Your task to perform on an android device: turn off improve location accuracy Image 0: 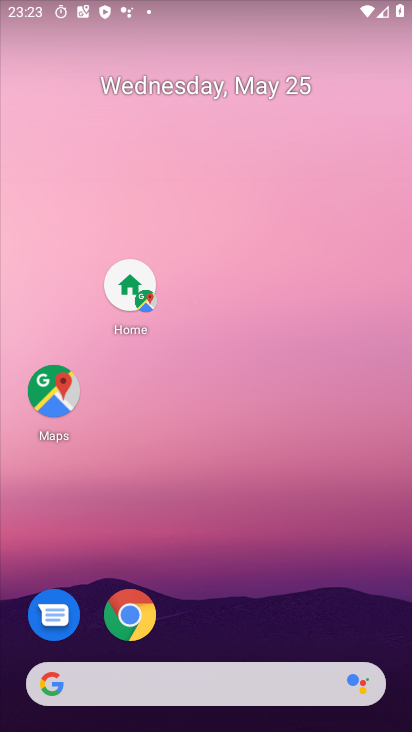
Step 0: press home button
Your task to perform on an android device: turn off improve location accuracy Image 1: 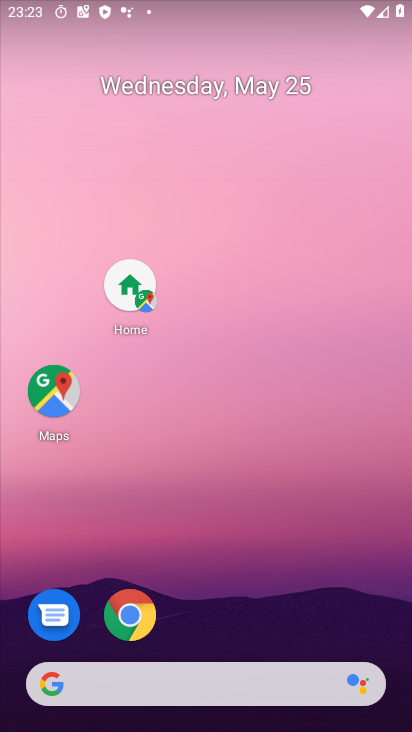
Step 1: drag from (281, 632) to (242, 22)
Your task to perform on an android device: turn off improve location accuracy Image 2: 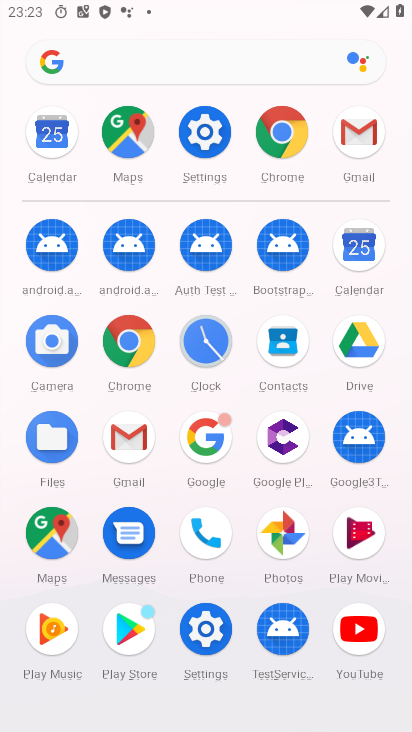
Step 2: click (213, 132)
Your task to perform on an android device: turn off improve location accuracy Image 3: 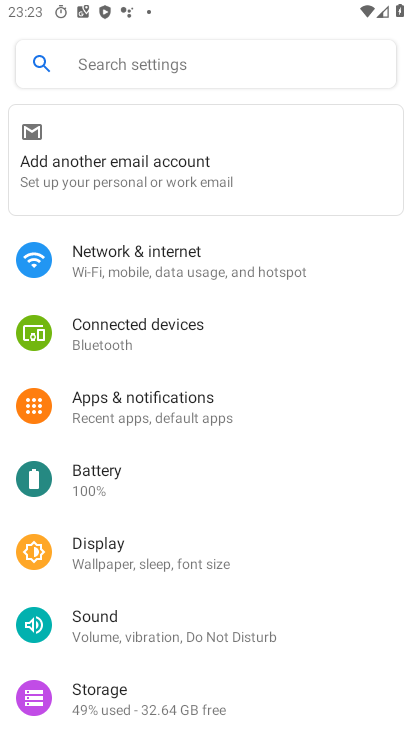
Step 3: drag from (345, 676) to (352, 147)
Your task to perform on an android device: turn off improve location accuracy Image 4: 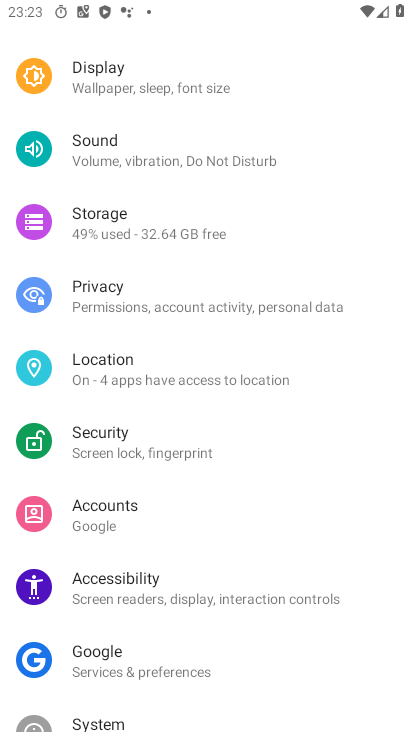
Step 4: click (122, 361)
Your task to perform on an android device: turn off improve location accuracy Image 5: 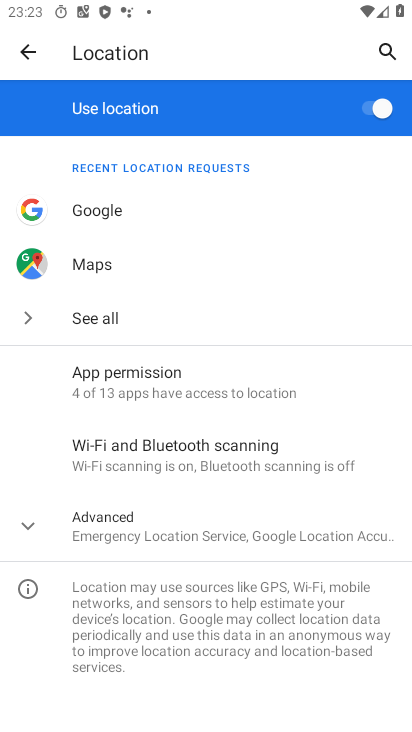
Step 5: click (105, 531)
Your task to perform on an android device: turn off improve location accuracy Image 6: 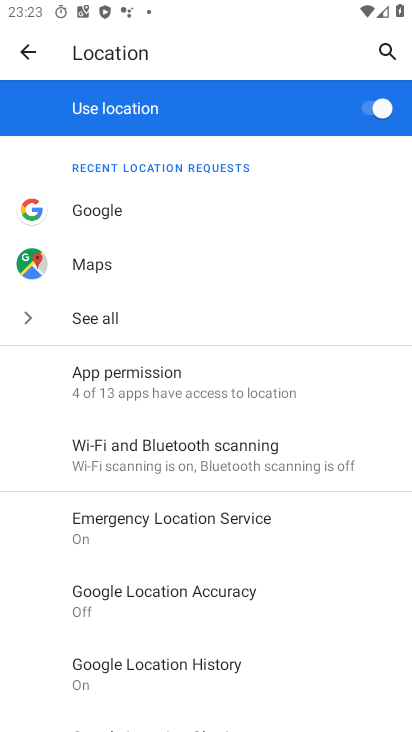
Step 6: click (191, 595)
Your task to perform on an android device: turn off improve location accuracy Image 7: 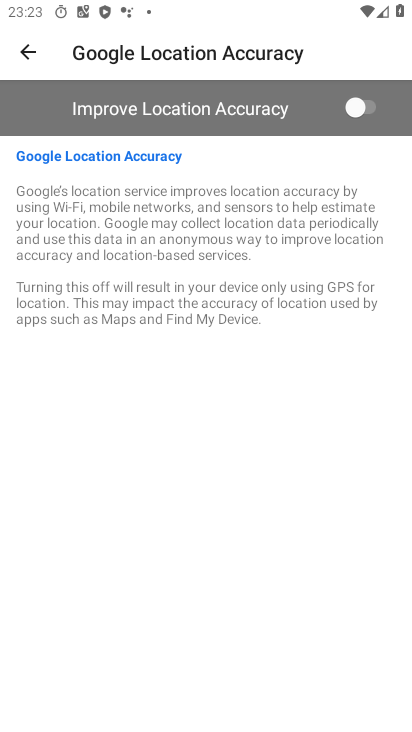
Step 7: task complete